Your task to perform on an android device: turn on sleep mode Image 0: 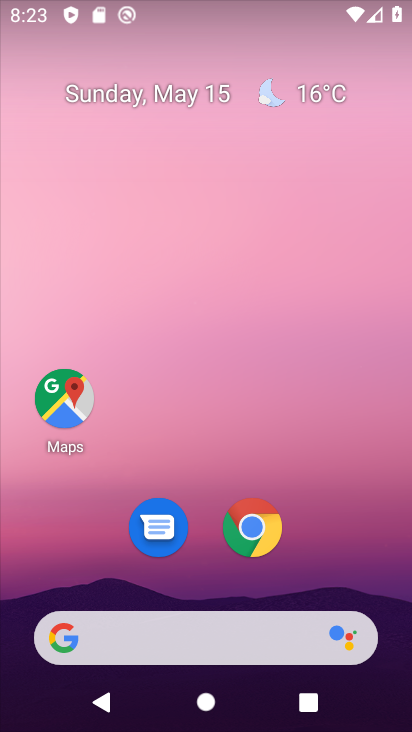
Step 0: click (327, 100)
Your task to perform on an android device: turn on sleep mode Image 1: 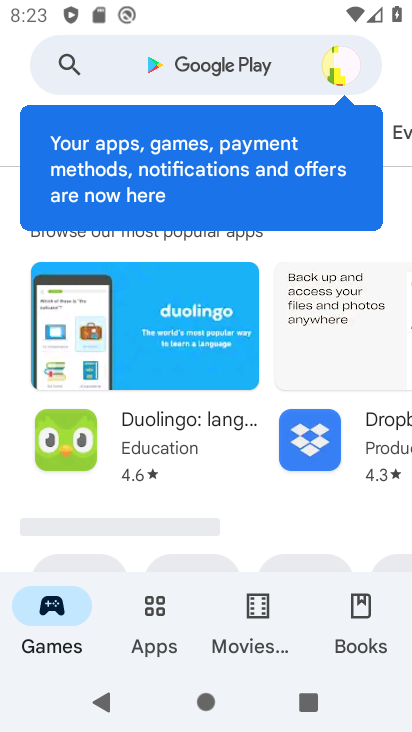
Step 1: press home button
Your task to perform on an android device: turn on sleep mode Image 2: 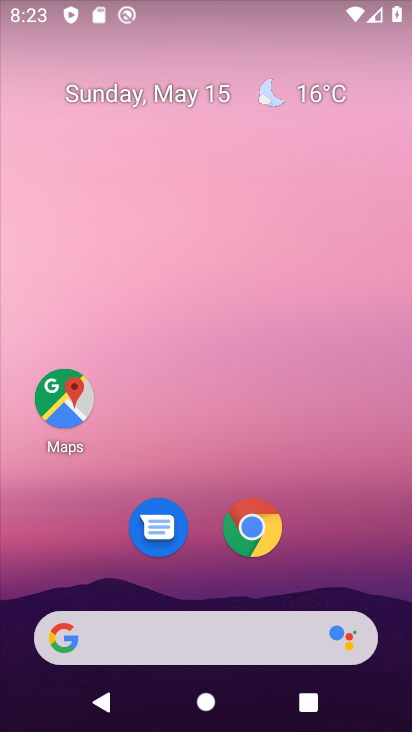
Step 2: drag from (323, 566) to (317, 30)
Your task to perform on an android device: turn on sleep mode Image 3: 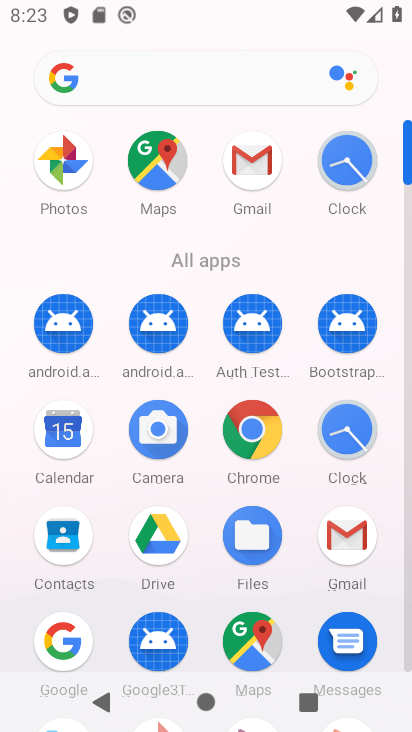
Step 3: click (410, 523)
Your task to perform on an android device: turn on sleep mode Image 4: 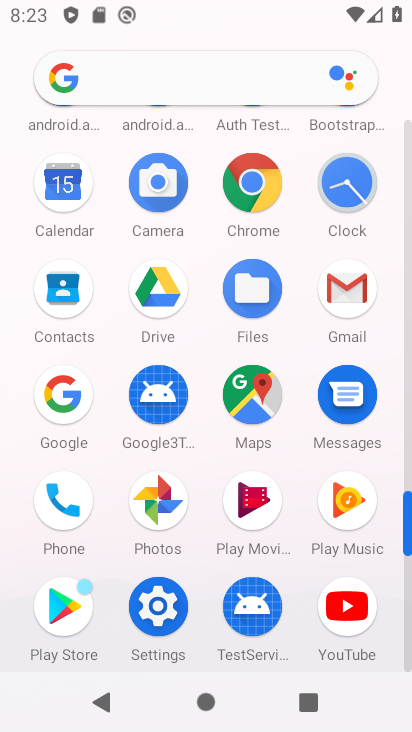
Step 4: click (167, 616)
Your task to perform on an android device: turn on sleep mode Image 5: 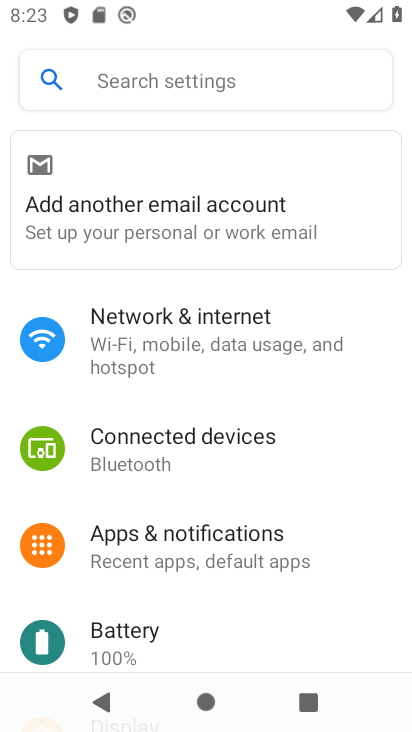
Step 5: drag from (189, 578) to (195, 98)
Your task to perform on an android device: turn on sleep mode Image 6: 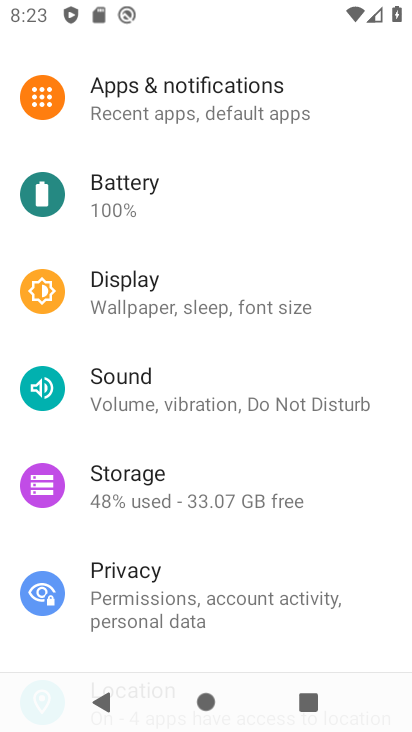
Step 6: click (100, 317)
Your task to perform on an android device: turn on sleep mode Image 7: 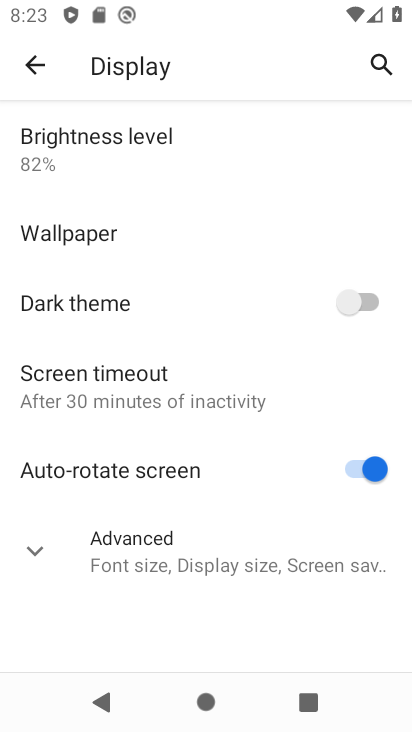
Step 7: click (35, 563)
Your task to perform on an android device: turn on sleep mode Image 8: 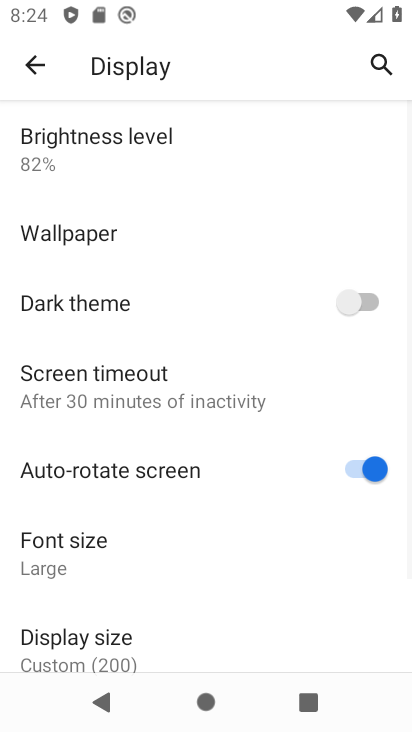
Step 8: task complete